Your task to perform on an android device: Open the Play Movies app and select the watchlist tab. Image 0: 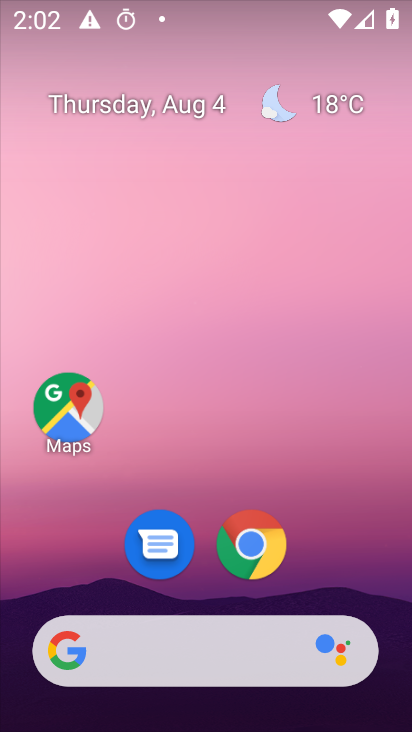
Step 0: drag from (382, 707) to (328, 15)
Your task to perform on an android device: Open the Play Movies app and select the watchlist tab. Image 1: 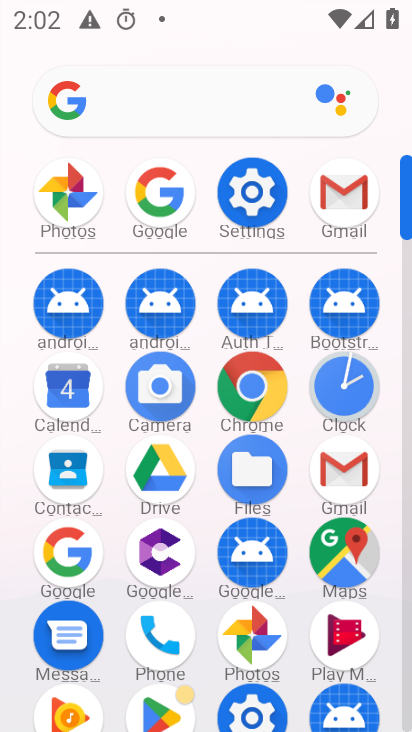
Step 1: click (338, 622)
Your task to perform on an android device: Open the Play Movies app and select the watchlist tab. Image 2: 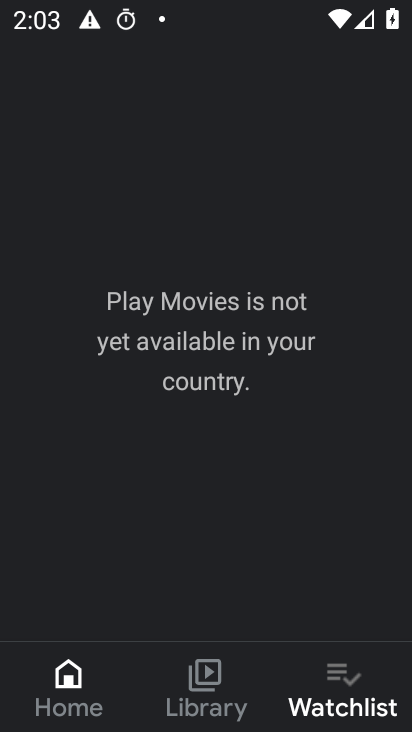
Step 2: click (373, 694)
Your task to perform on an android device: Open the Play Movies app and select the watchlist tab. Image 3: 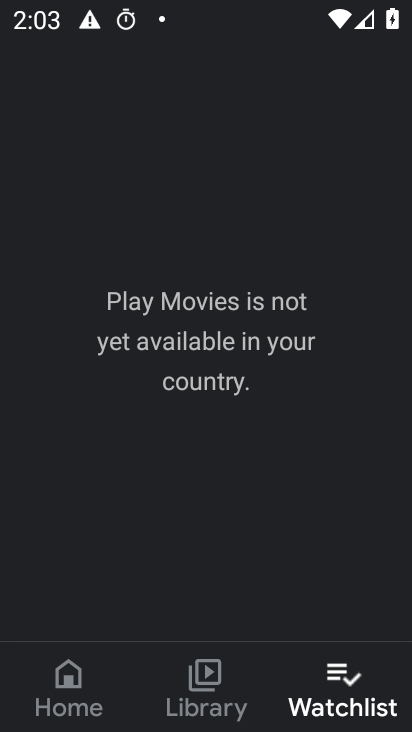
Step 3: click (351, 681)
Your task to perform on an android device: Open the Play Movies app and select the watchlist tab. Image 4: 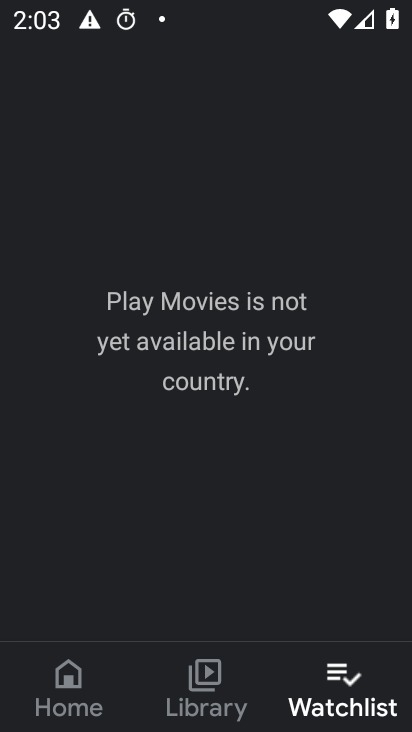
Step 4: click (342, 667)
Your task to perform on an android device: Open the Play Movies app and select the watchlist tab. Image 5: 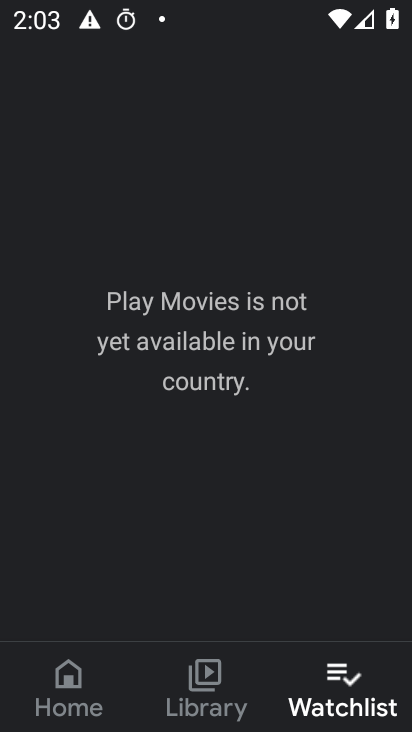
Step 5: task complete